Your task to perform on an android device: delete the emails in spam in the gmail app Image 0: 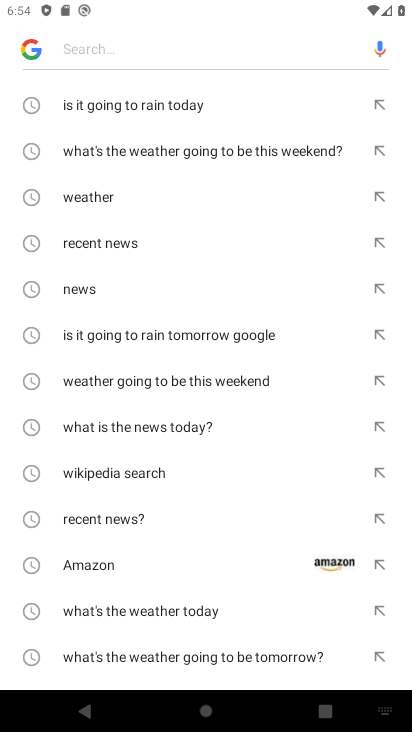
Step 0: press home button
Your task to perform on an android device: delete the emails in spam in the gmail app Image 1: 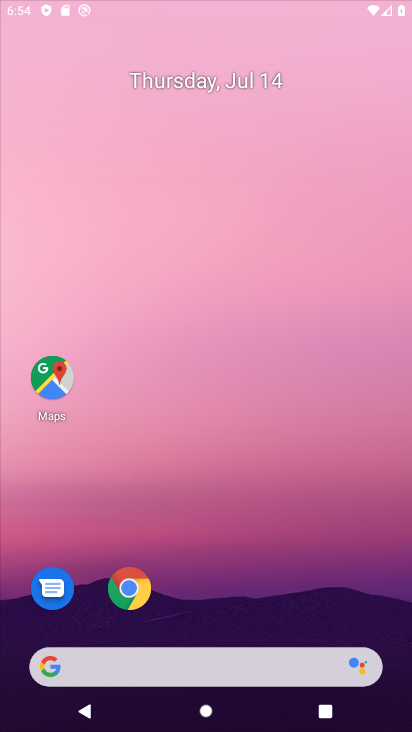
Step 1: drag from (351, 685) to (221, 7)
Your task to perform on an android device: delete the emails in spam in the gmail app Image 2: 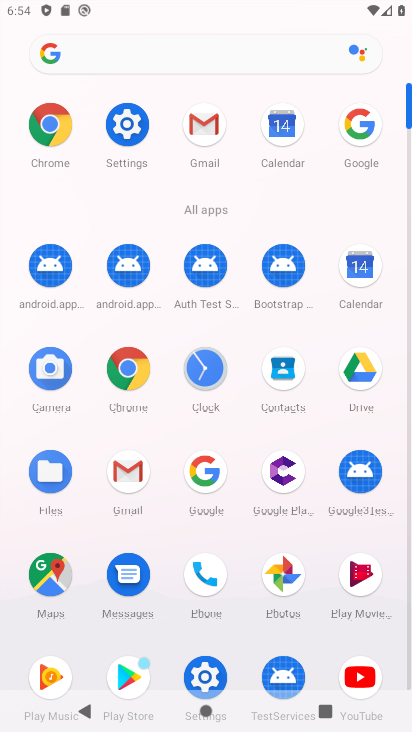
Step 2: click (133, 493)
Your task to perform on an android device: delete the emails in spam in the gmail app Image 3: 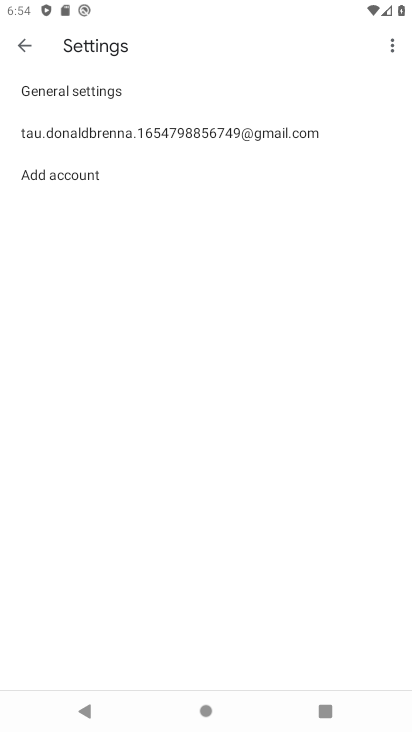
Step 3: press back button
Your task to perform on an android device: delete the emails in spam in the gmail app Image 4: 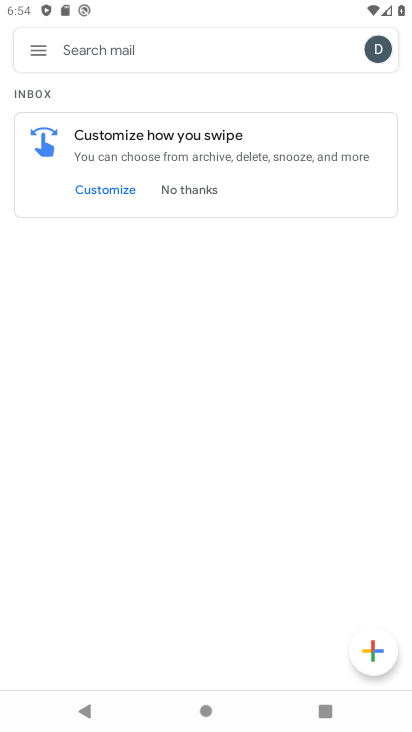
Step 4: click (42, 47)
Your task to perform on an android device: delete the emails in spam in the gmail app Image 5: 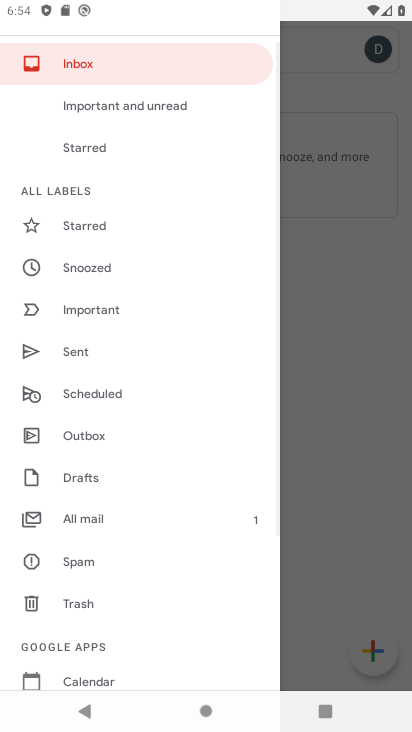
Step 5: click (73, 568)
Your task to perform on an android device: delete the emails in spam in the gmail app Image 6: 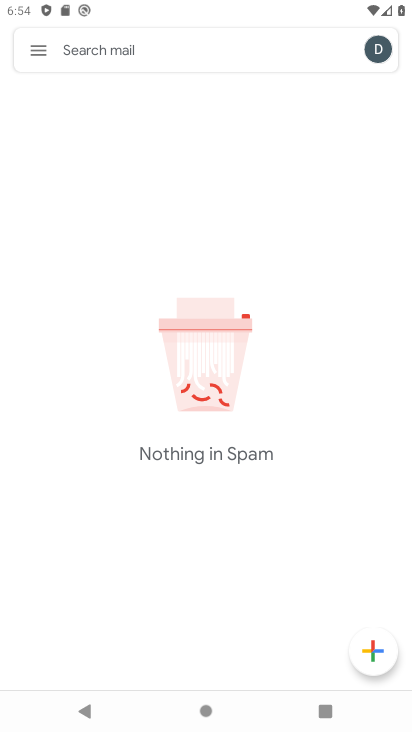
Step 6: task complete